Your task to perform on an android device: turn on airplane mode Image 0: 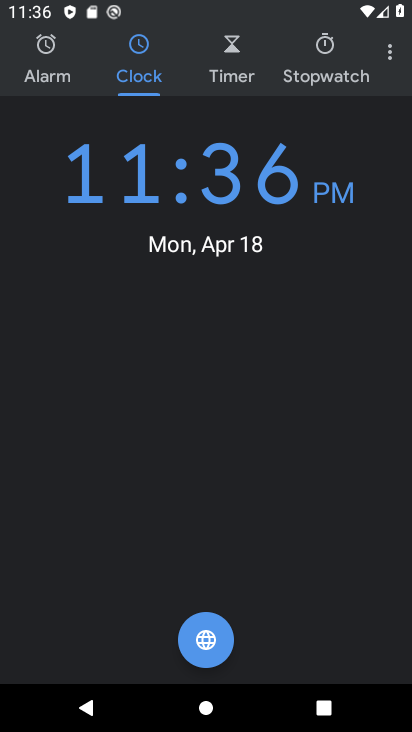
Step 0: press home button
Your task to perform on an android device: turn on airplane mode Image 1: 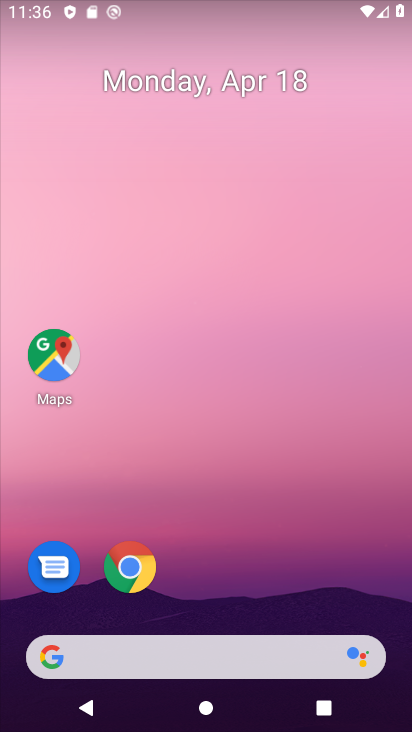
Step 1: drag from (377, 541) to (314, 186)
Your task to perform on an android device: turn on airplane mode Image 2: 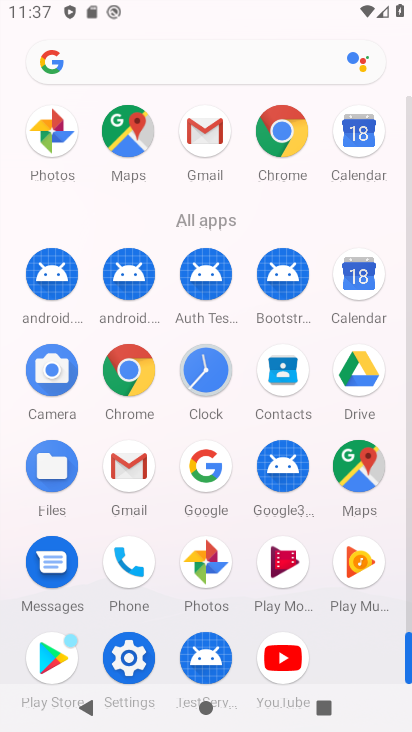
Step 2: click (125, 656)
Your task to perform on an android device: turn on airplane mode Image 3: 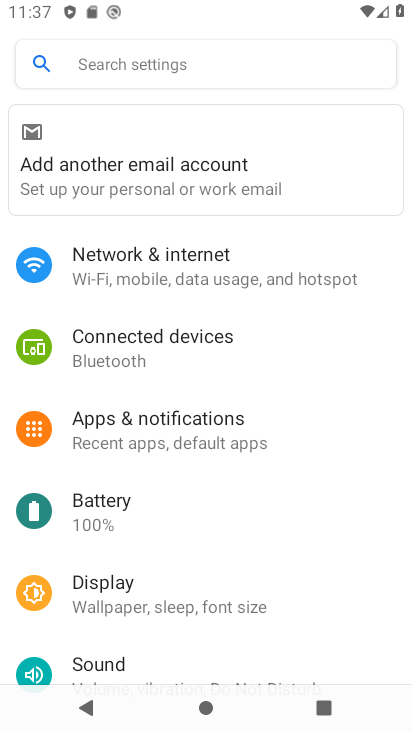
Step 3: click (146, 276)
Your task to perform on an android device: turn on airplane mode Image 4: 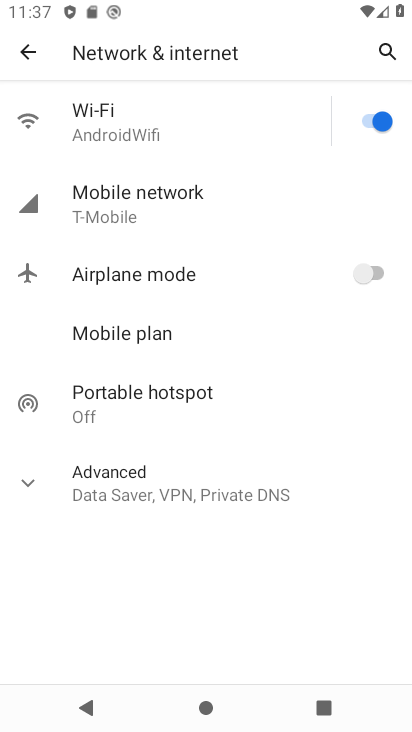
Step 4: click (376, 271)
Your task to perform on an android device: turn on airplane mode Image 5: 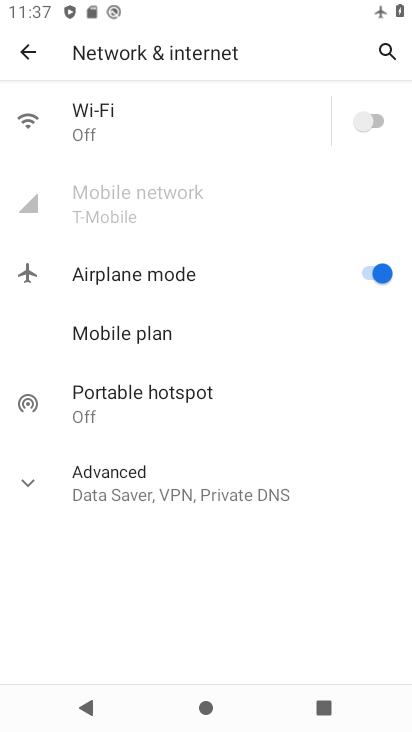
Step 5: task complete